Your task to perform on an android device: Set the phone to "Do not disturb". Image 0: 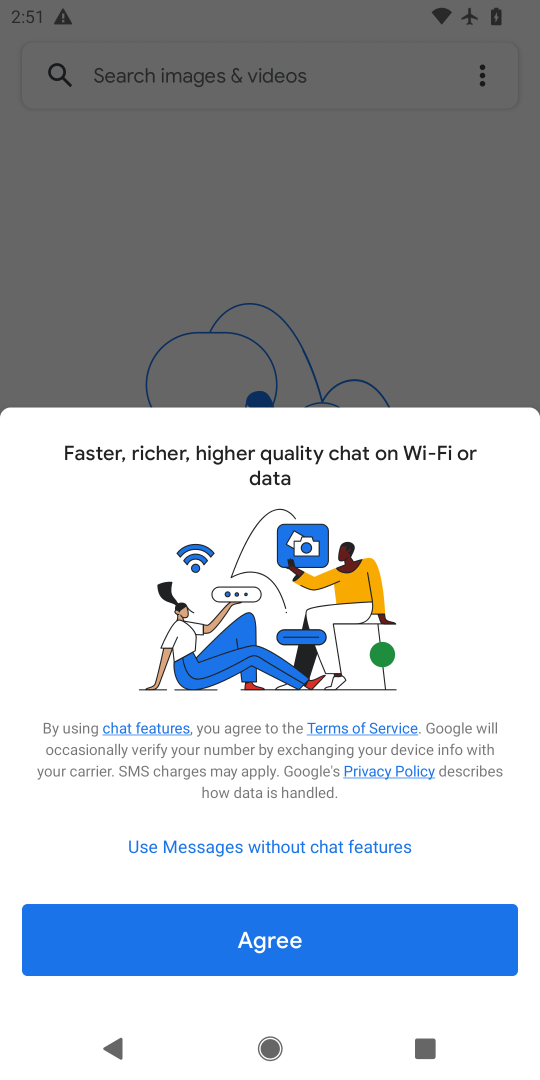
Step 0: press home button
Your task to perform on an android device: Set the phone to "Do not disturb". Image 1: 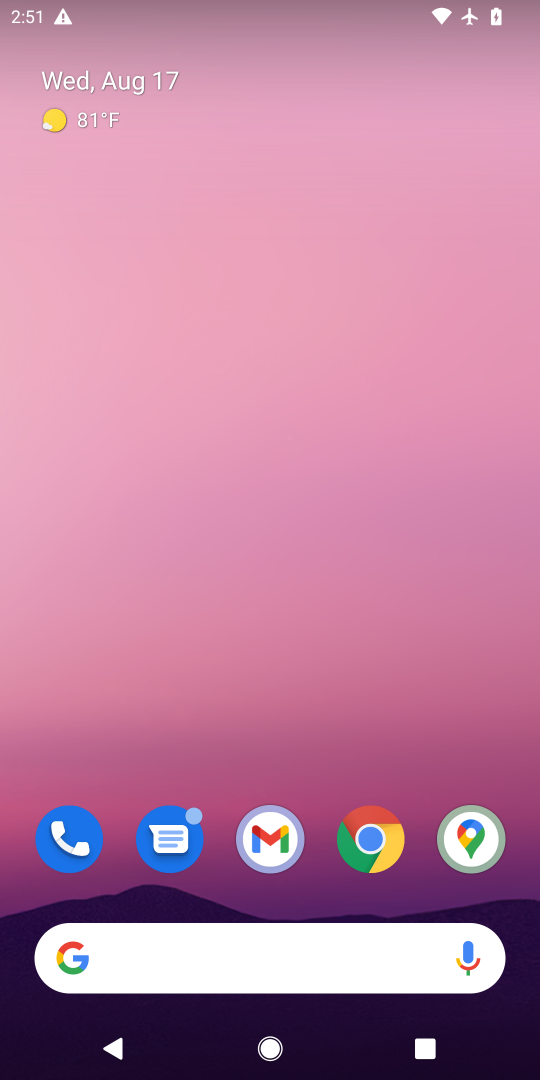
Step 1: drag from (322, 580) to (318, 41)
Your task to perform on an android device: Set the phone to "Do not disturb". Image 2: 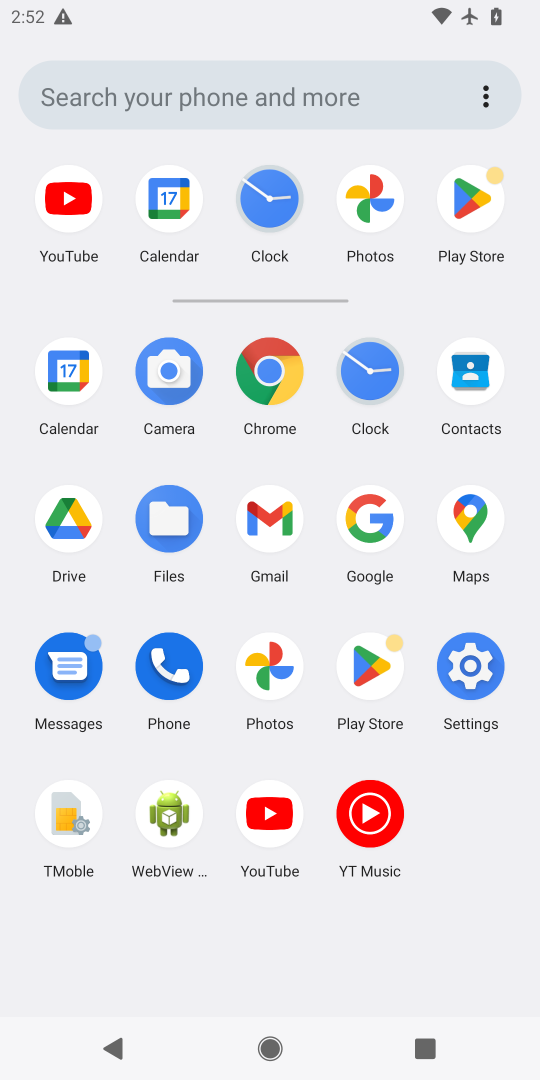
Step 2: click (479, 673)
Your task to perform on an android device: Set the phone to "Do not disturb". Image 3: 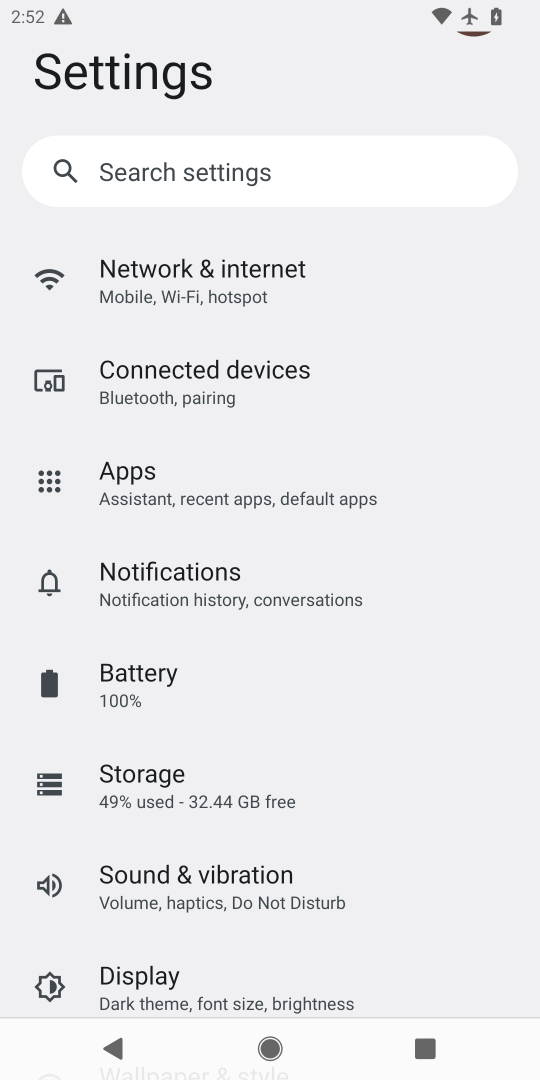
Step 3: drag from (163, 897) to (176, 611)
Your task to perform on an android device: Set the phone to "Do not disturb". Image 4: 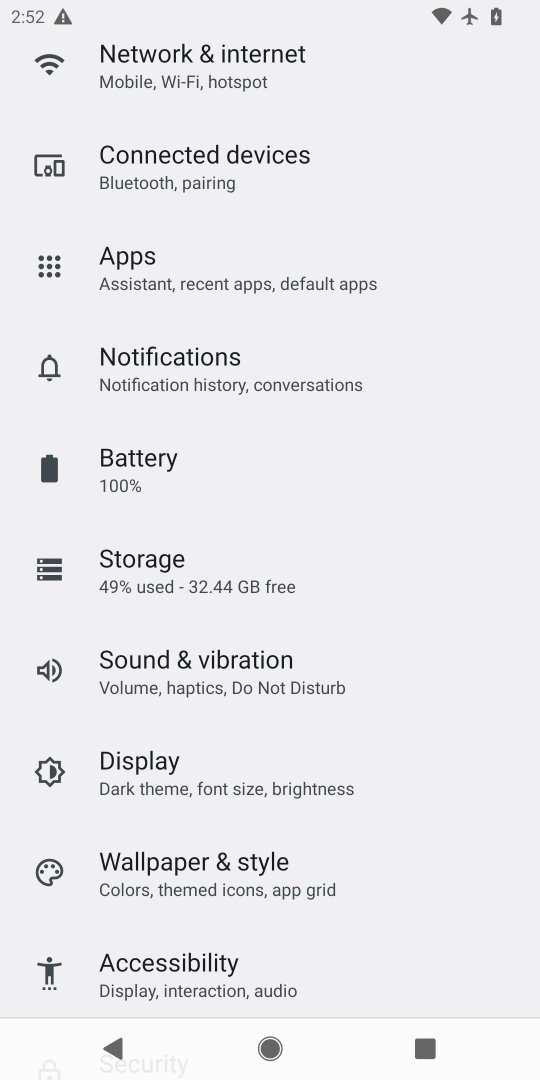
Step 4: drag from (222, 924) to (234, 755)
Your task to perform on an android device: Set the phone to "Do not disturb". Image 5: 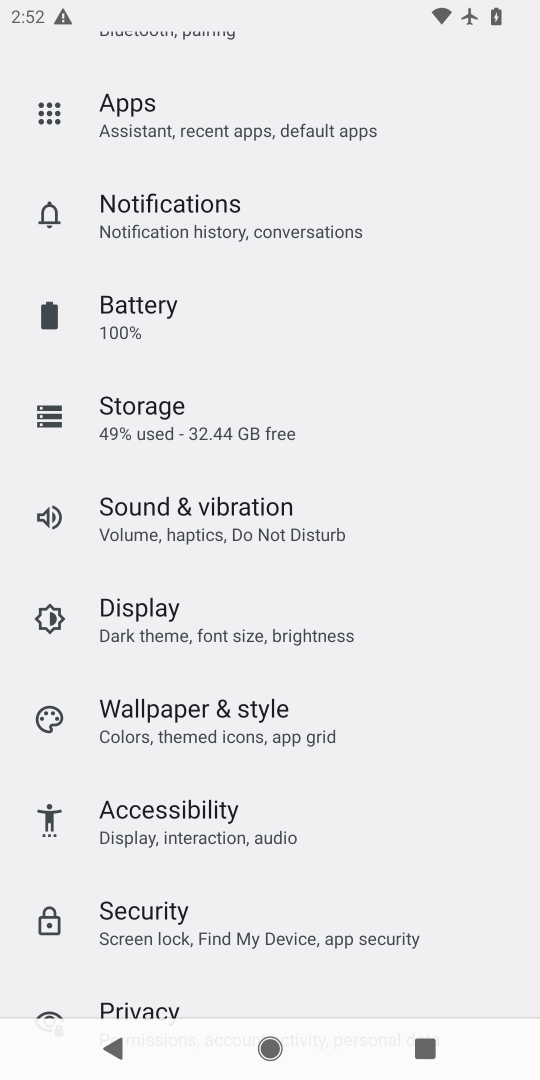
Step 5: drag from (219, 192) to (156, 773)
Your task to perform on an android device: Set the phone to "Do not disturb". Image 6: 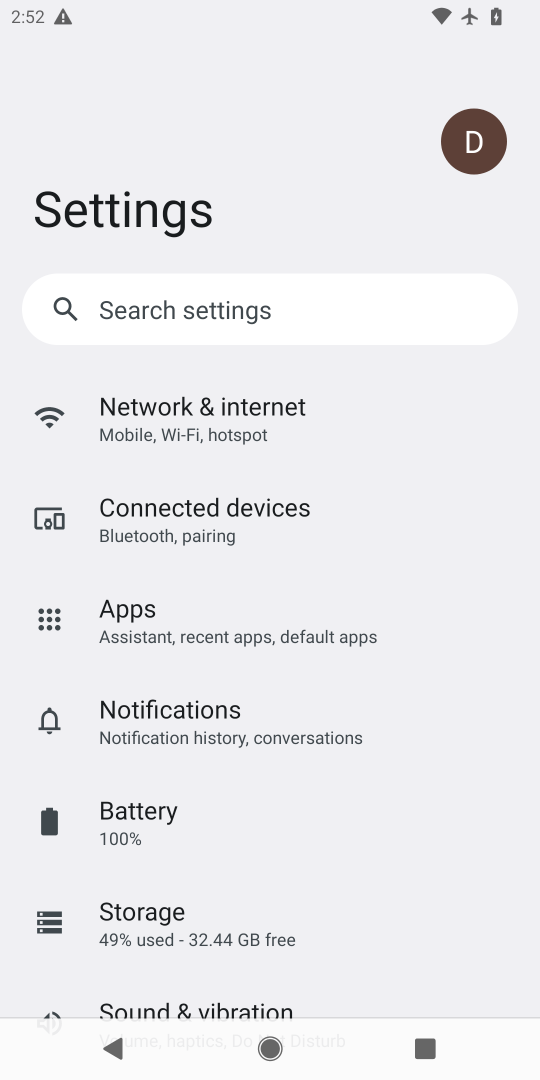
Step 6: drag from (175, 949) to (185, 439)
Your task to perform on an android device: Set the phone to "Do not disturb". Image 7: 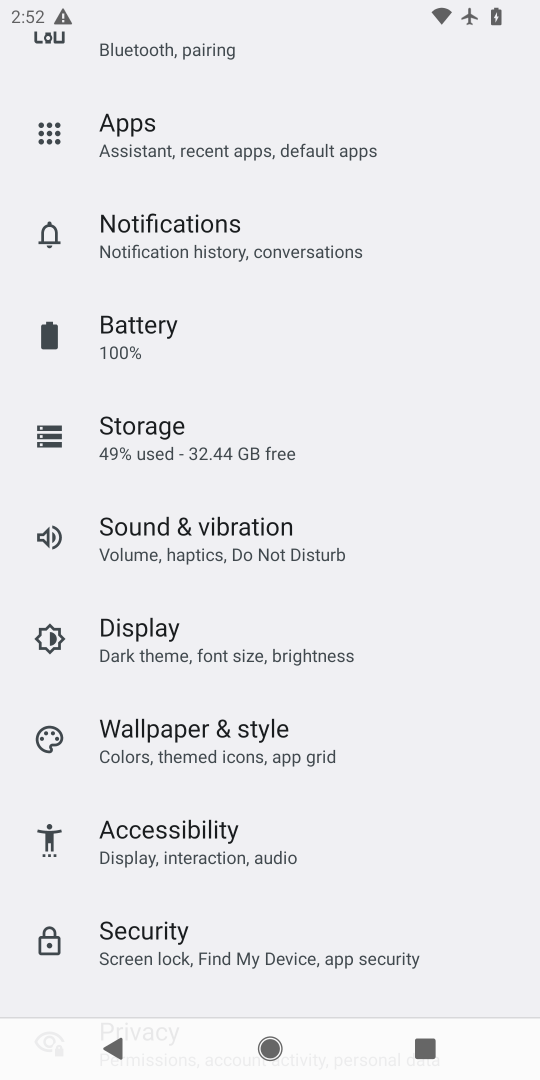
Step 7: drag from (169, 958) to (161, 809)
Your task to perform on an android device: Set the phone to "Do not disturb". Image 8: 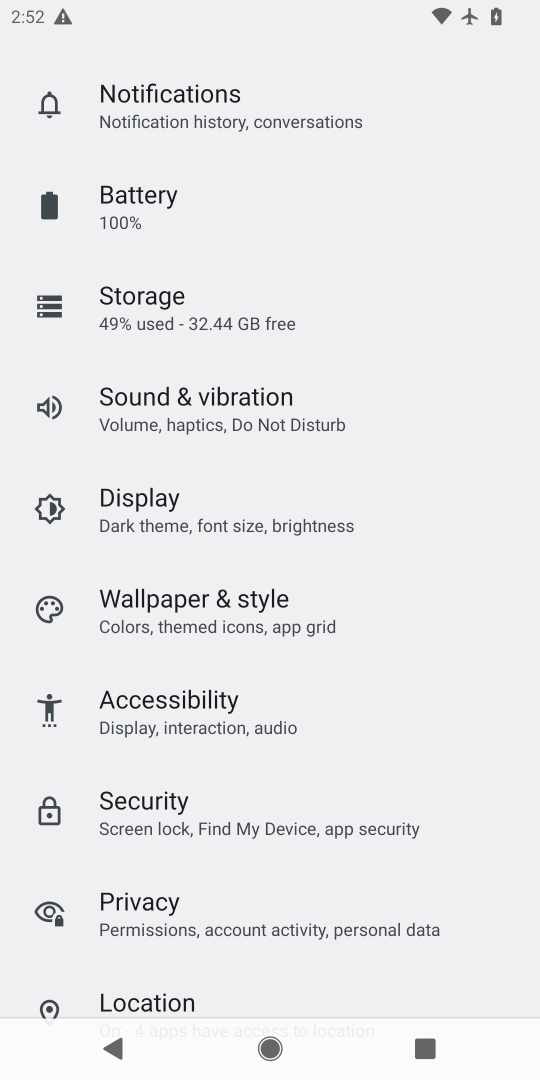
Step 8: click (208, 410)
Your task to perform on an android device: Set the phone to "Do not disturb". Image 9: 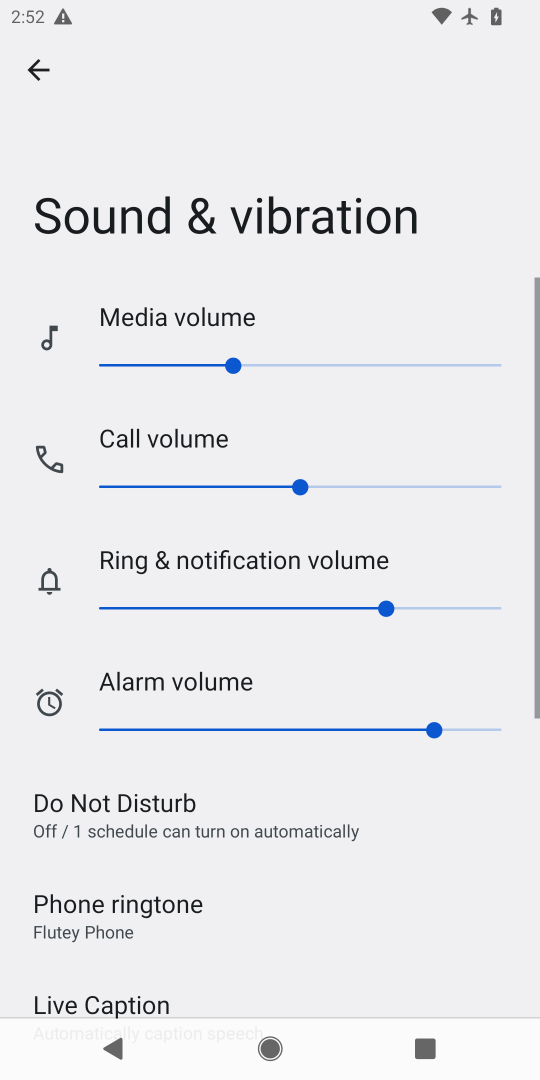
Step 9: drag from (146, 914) to (149, 461)
Your task to perform on an android device: Set the phone to "Do not disturb". Image 10: 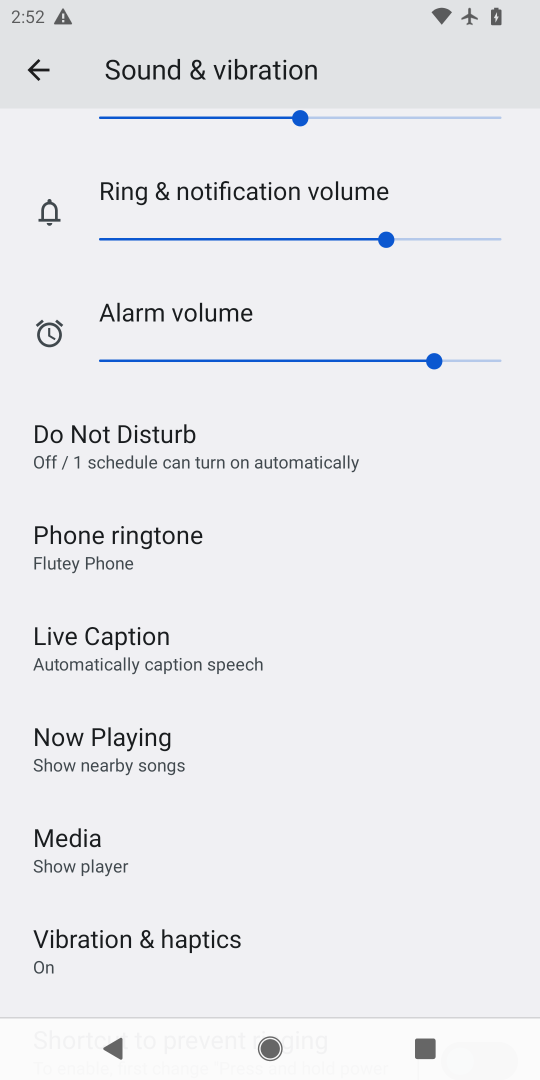
Step 10: click (123, 473)
Your task to perform on an android device: Set the phone to "Do not disturb". Image 11: 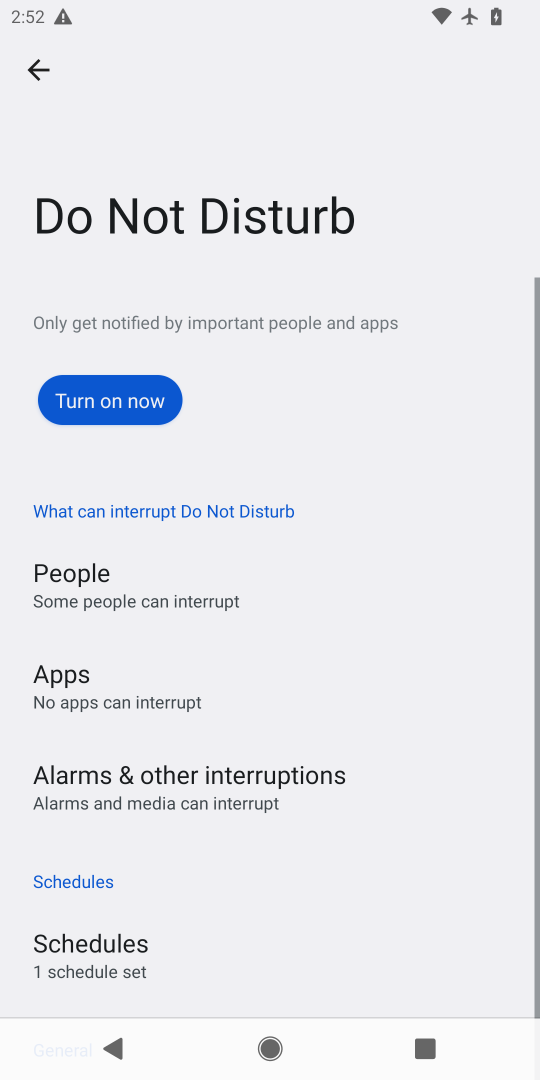
Step 11: click (105, 399)
Your task to perform on an android device: Set the phone to "Do not disturb". Image 12: 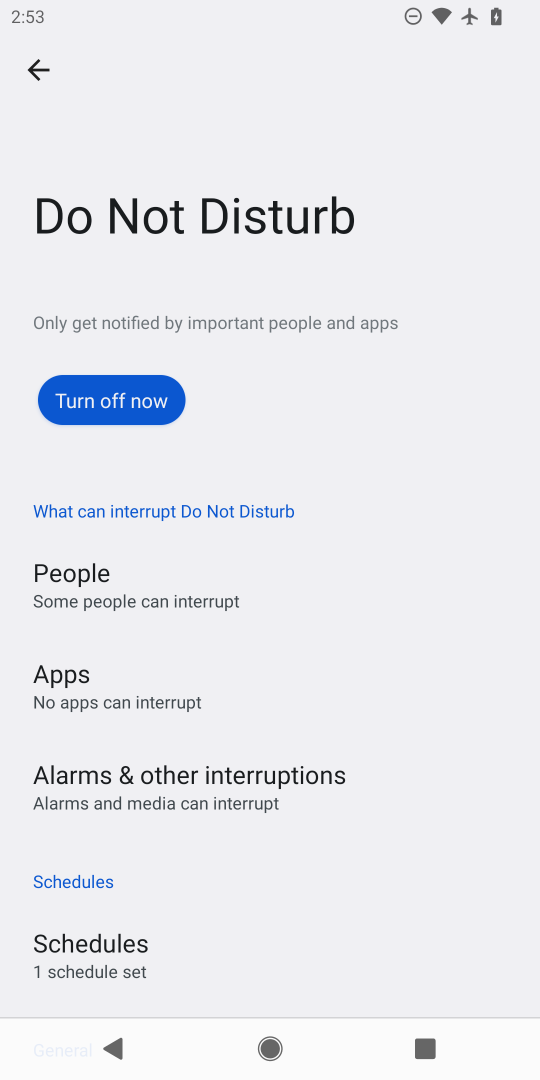
Step 12: task complete